Your task to perform on an android device: Open Android settings Image 0: 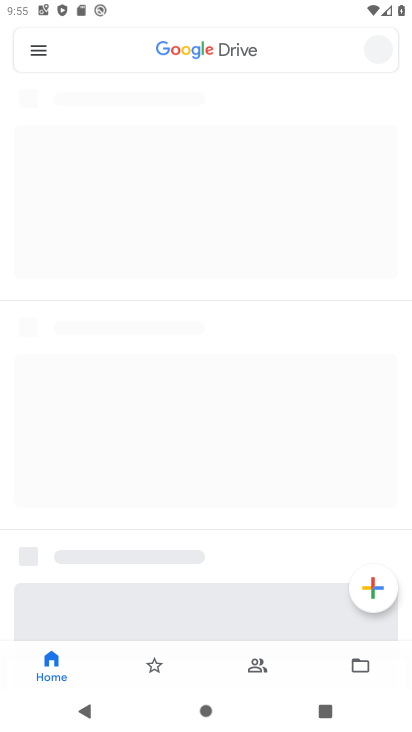
Step 0: click (116, 587)
Your task to perform on an android device: Open Android settings Image 1: 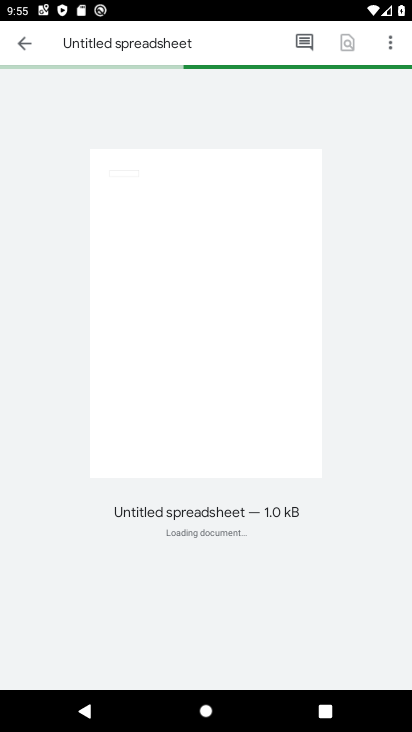
Step 1: press back button
Your task to perform on an android device: Open Android settings Image 2: 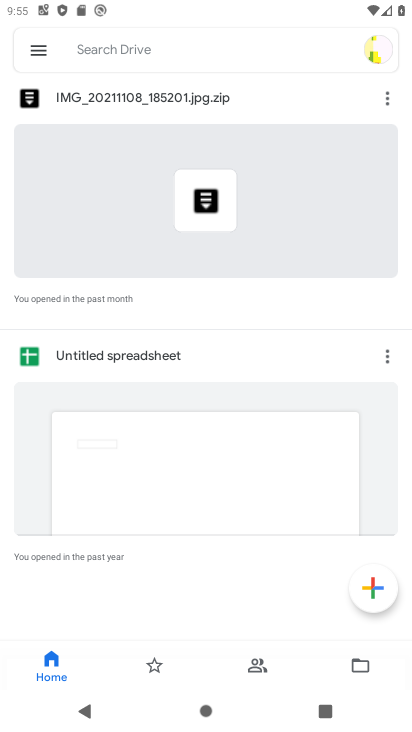
Step 2: press back button
Your task to perform on an android device: Open Android settings Image 3: 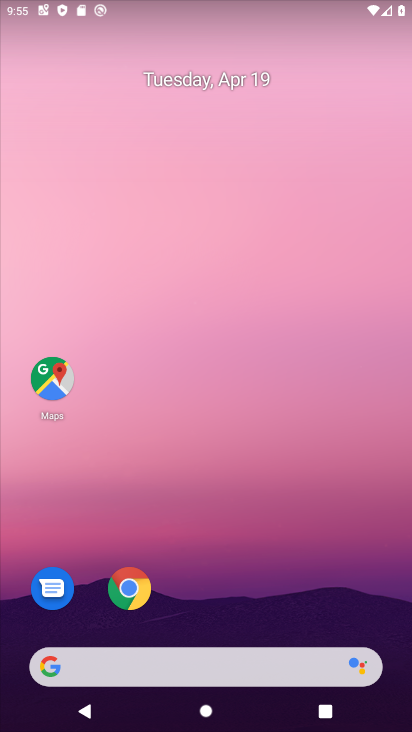
Step 3: drag from (185, 634) to (256, 204)
Your task to perform on an android device: Open Android settings Image 4: 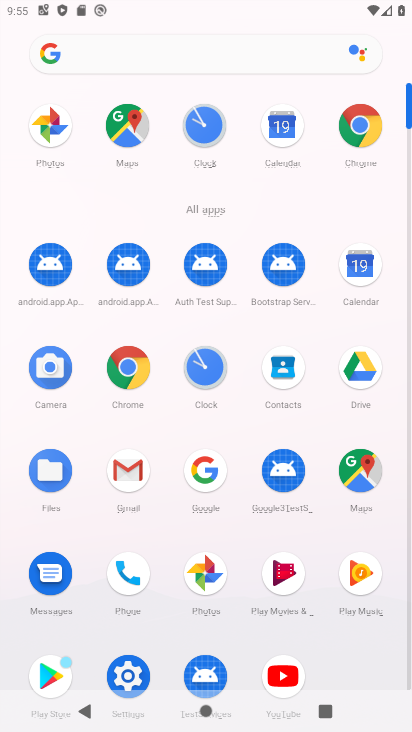
Step 4: click (120, 669)
Your task to perform on an android device: Open Android settings Image 5: 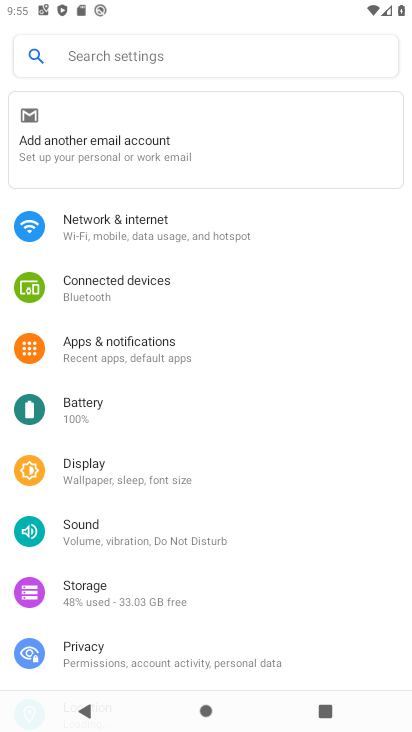
Step 5: drag from (159, 618) to (371, 25)
Your task to perform on an android device: Open Android settings Image 6: 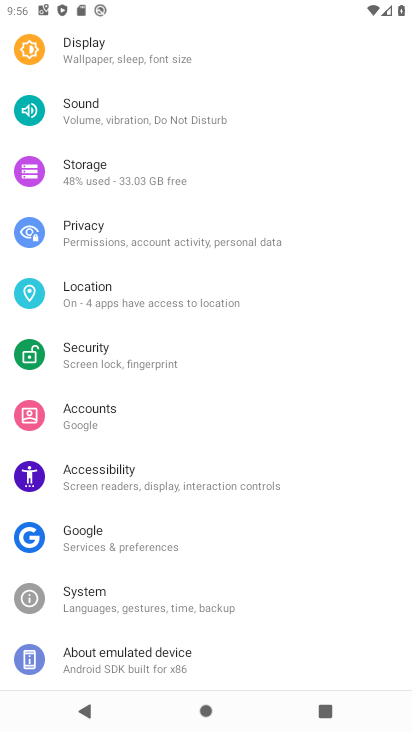
Step 6: click (143, 676)
Your task to perform on an android device: Open Android settings Image 7: 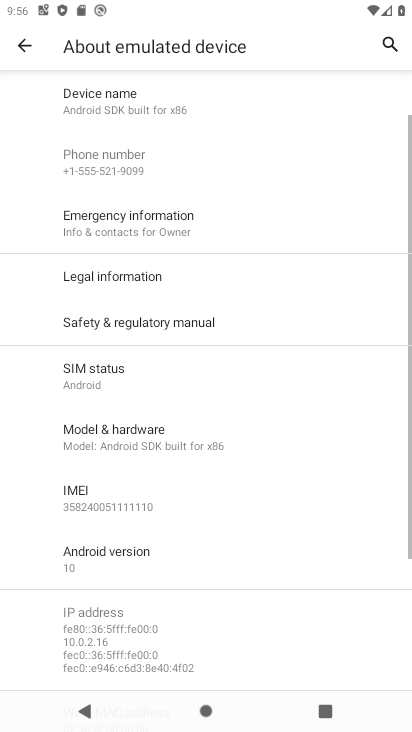
Step 7: drag from (136, 482) to (213, 212)
Your task to perform on an android device: Open Android settings Image 8: 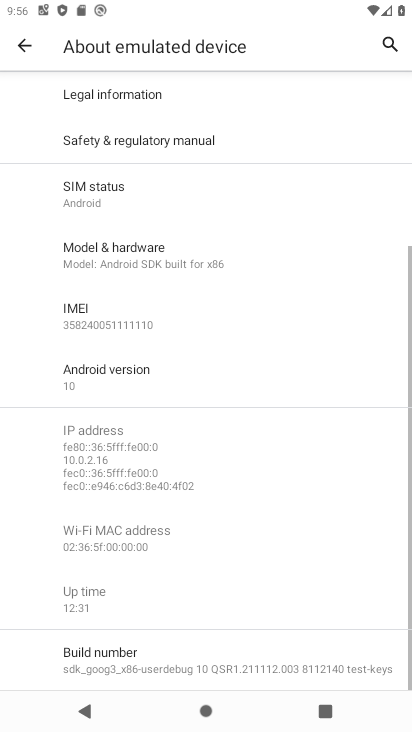
Step 8: click (137, 368)
Your task to perform on an android device: Open Android settings Image 9: 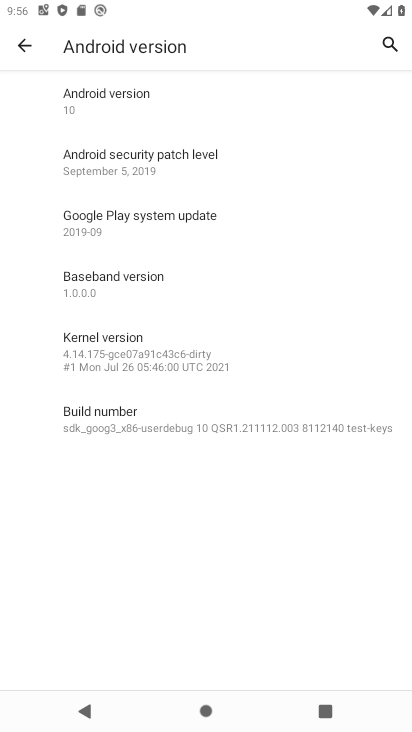
Step 9: task complete